Your task to perform on an android device: install app "McDonald's" Image 0: 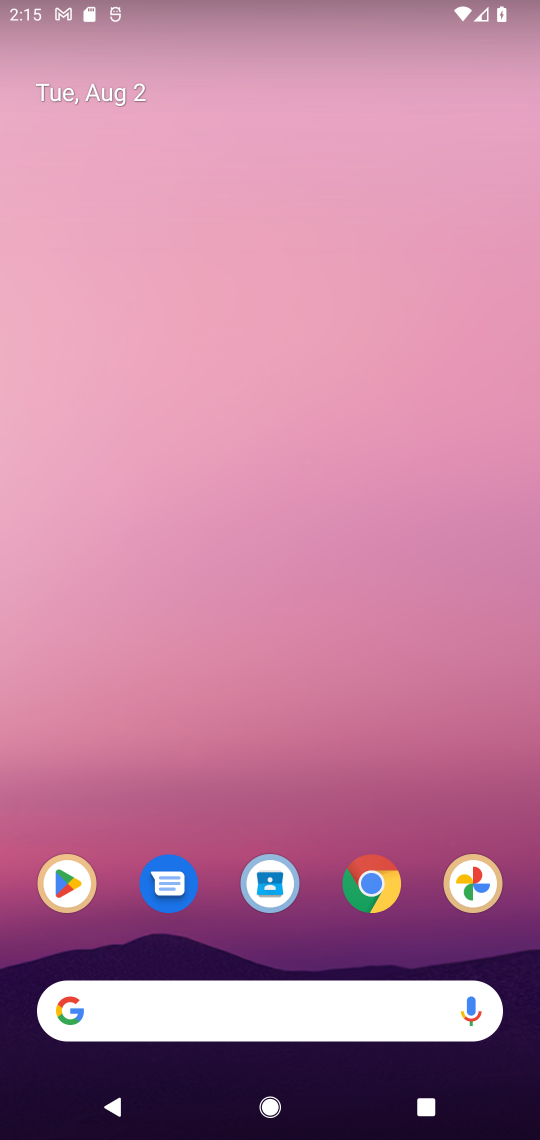
Step 0: drag from (213, 890) to (222, 99)
Your task to perform on an android device: install app "McDonald's" Image 1: 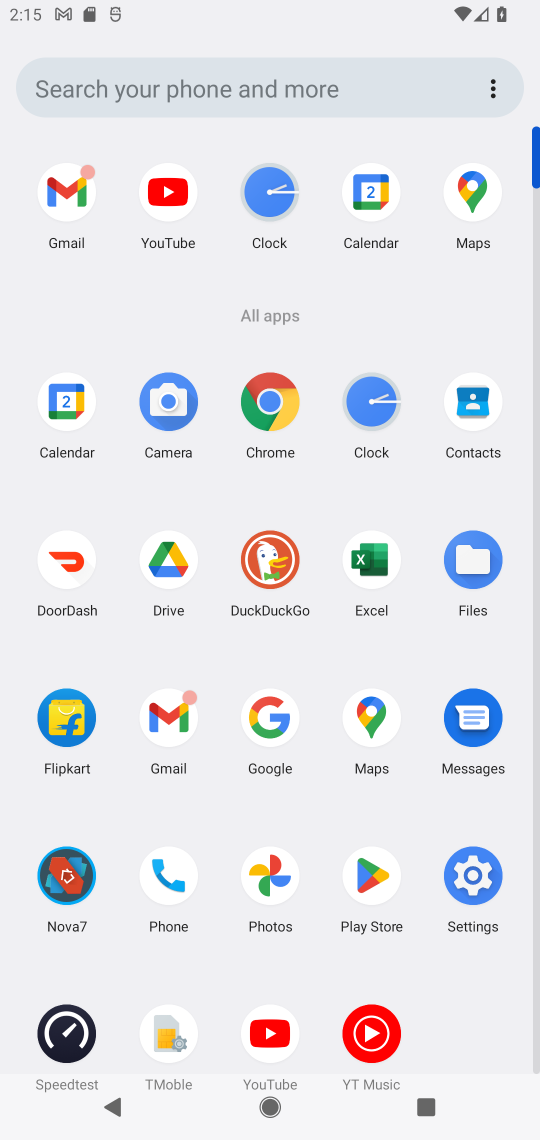
Step 1: click (371, 880)
Your task to perform on an android device: install app "McDonald's" Image 2: 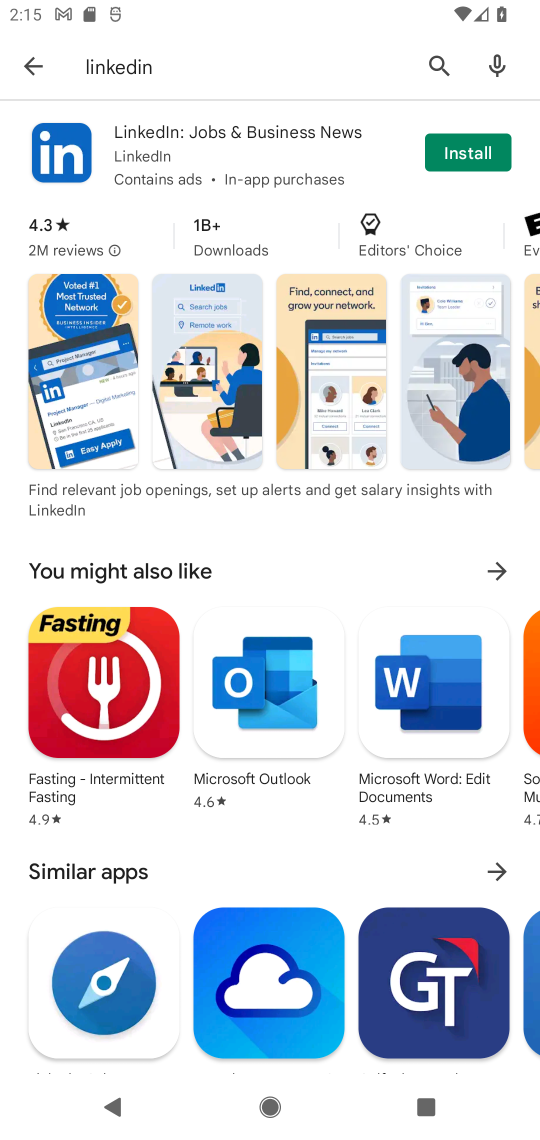
Step 2: click (432, 63)
Your task to perform on an android device: install app "McDonald's" Image 3: 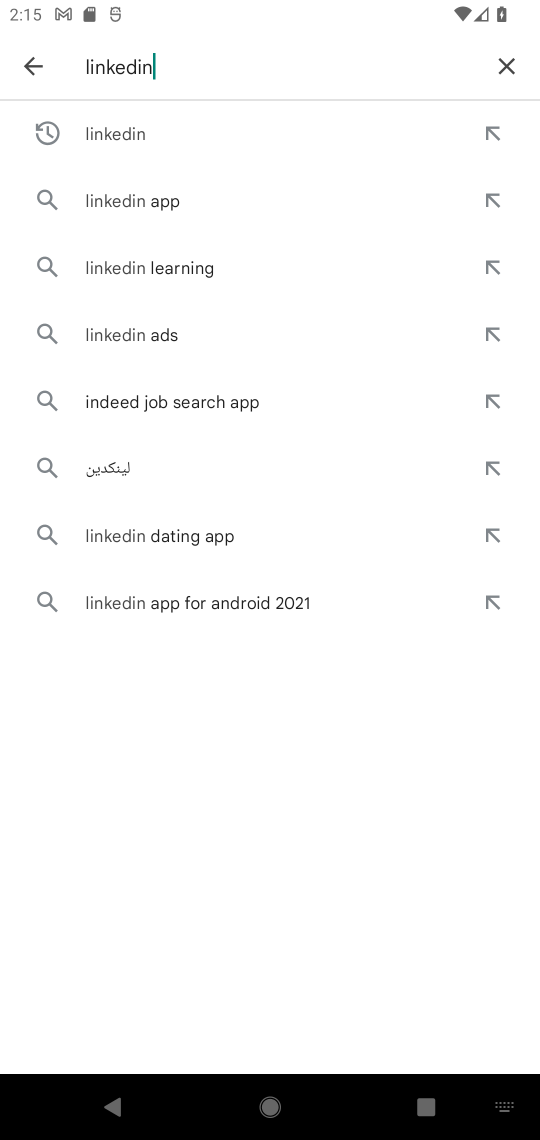
Step 3: click (506, 59)
Your task to perform on an android device: install app "McDonald's" Image 4: 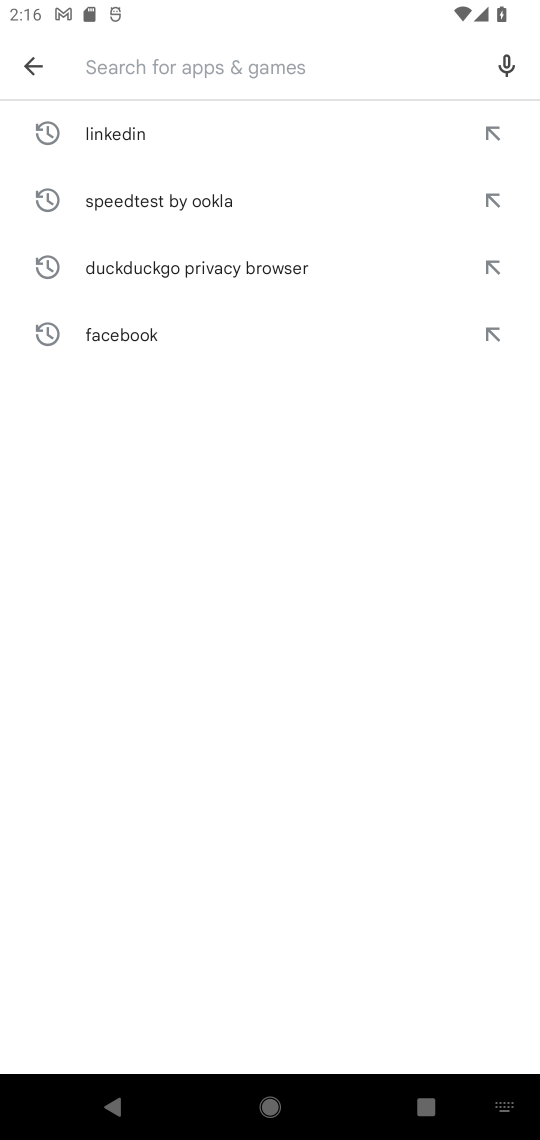
Step 4: type "McDonald's"
Your task to perform on an android device: install app "McDonald's" Image 5: 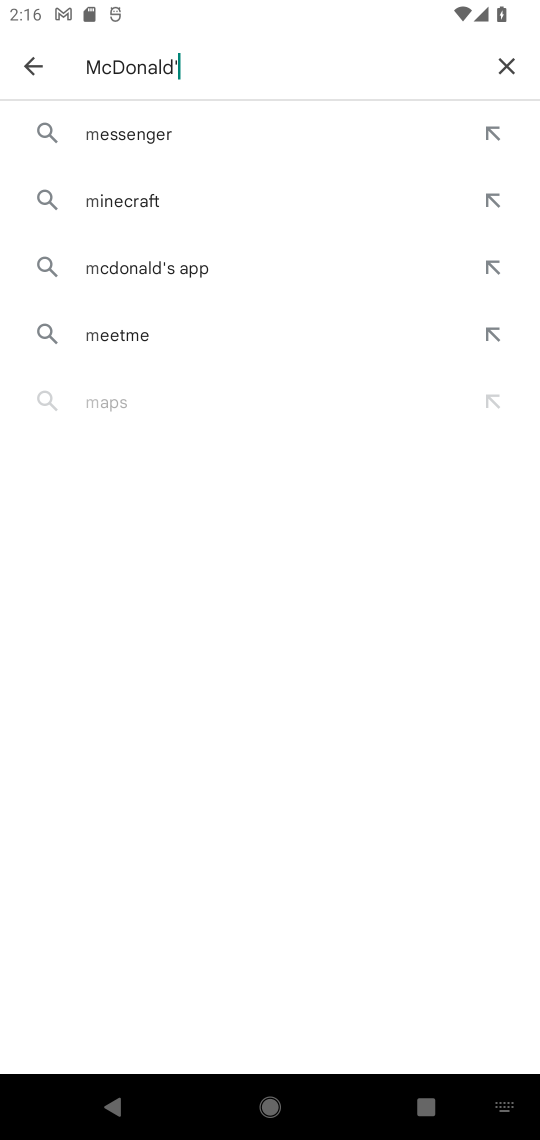
Step 5: type ""
Your task to perform on an android device: install app "McDonald's" Image 6: 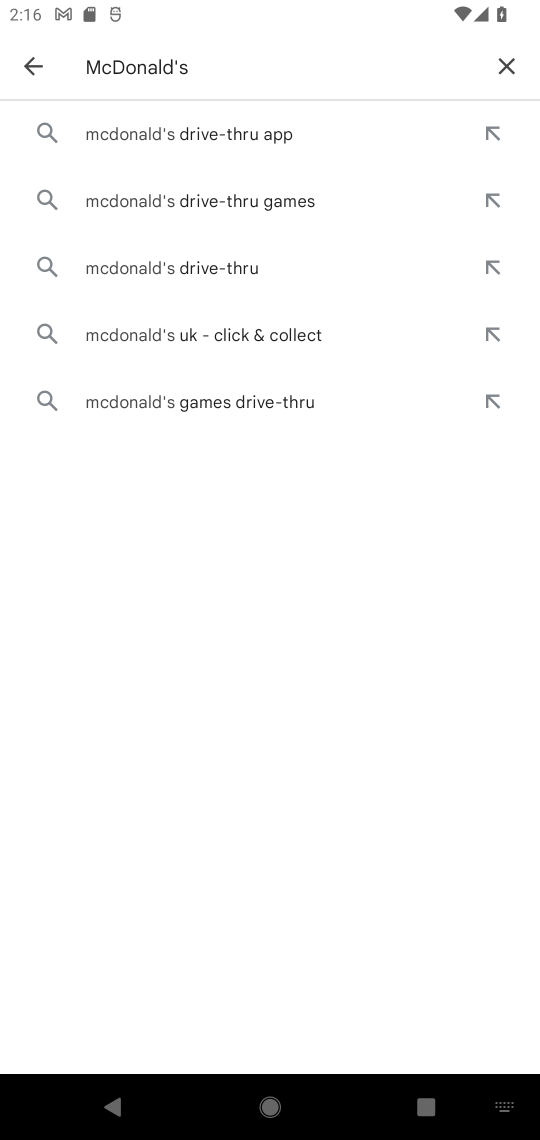
Step 6: click (215, 131)
Your task to perform on an android device: install app "McDonald's" Image 7: 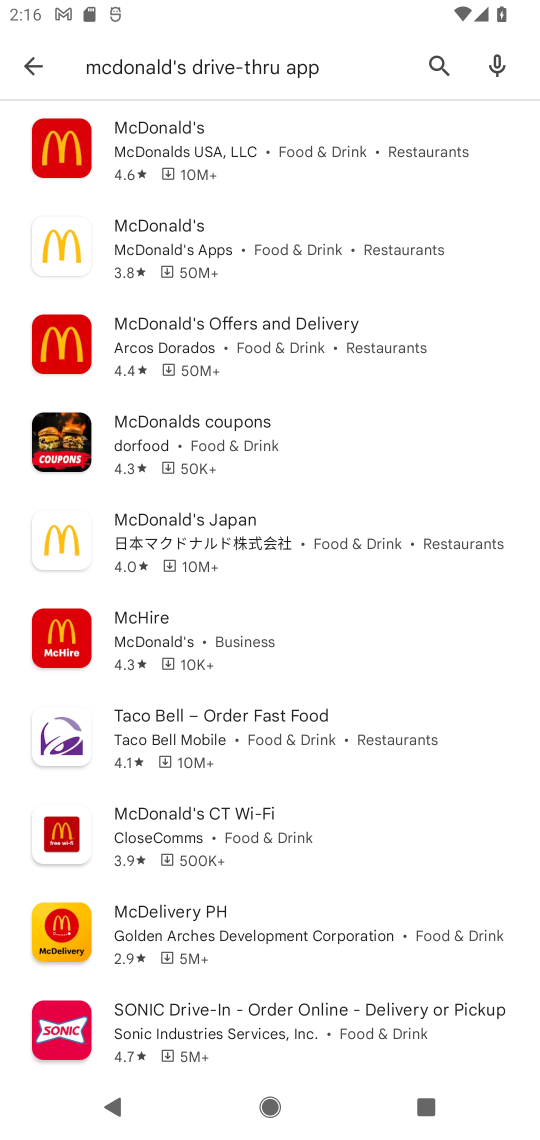
Step 7: click (154, 139)
Your task to perform on an android device: install app "McDonald's" Image 8: 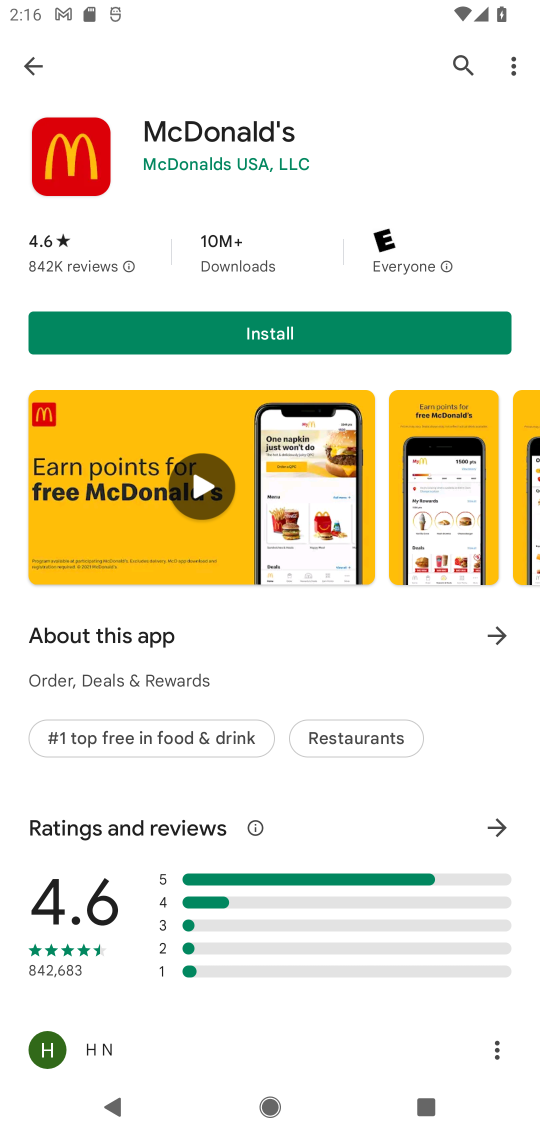
Step 8: click (340, 335)
Your task to perform on an android device: install app "McDonald's" Image 9: 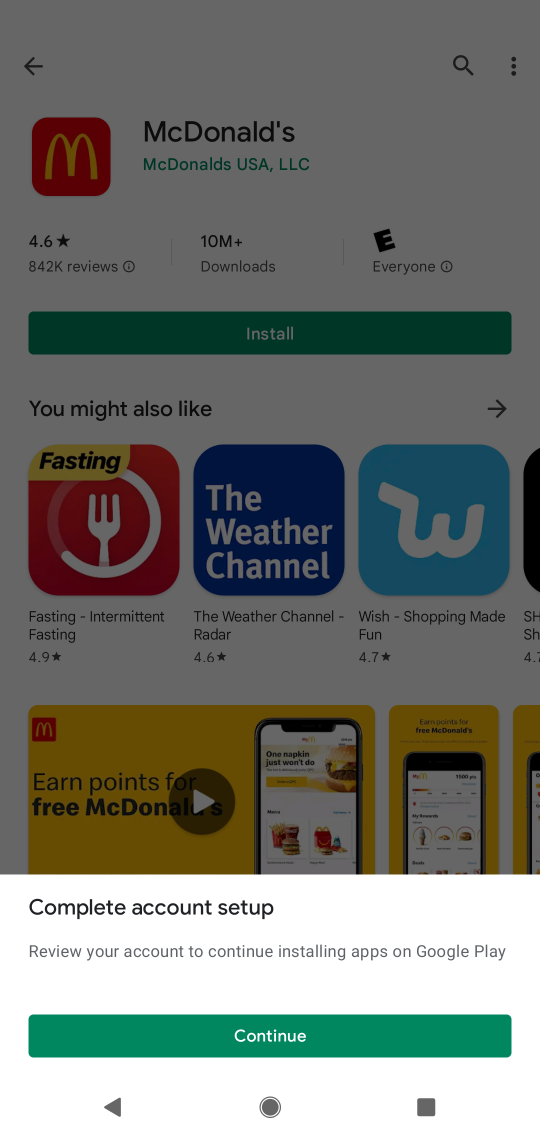
Step 9: click (185, 1026)
Your task to perform on an android device: install app "McDonald's" Image 10: 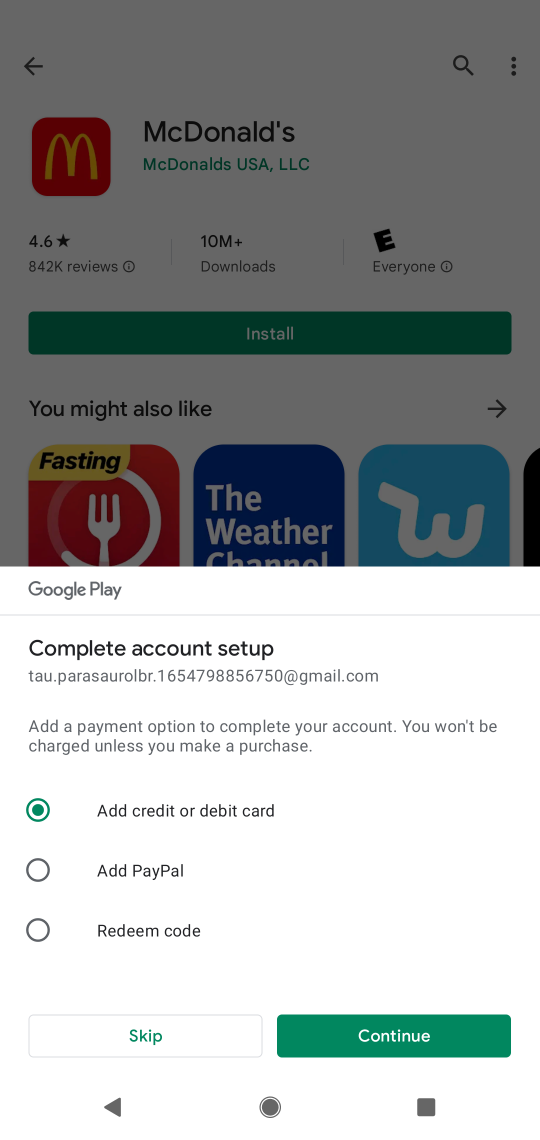
Step 10: click (146, 1033)
Your task to perform on an android device: install app "McDonald's" Image 11: 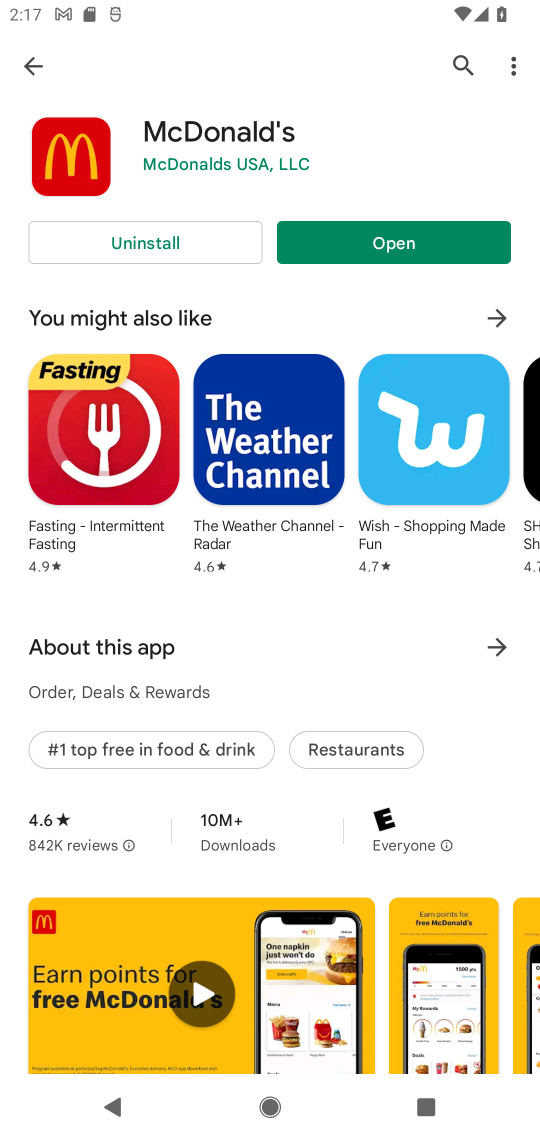
Step 11: task complete